Your task to perform on an android device: Open sound settings Image 0: 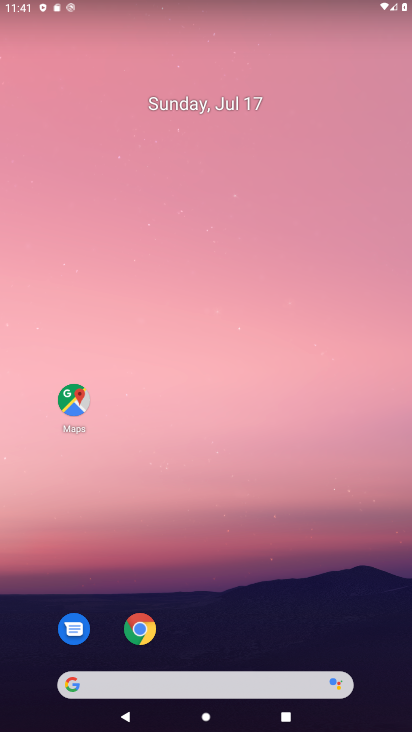
Step 0: press home button
Your task to perform on an android device: Open sound settings Image 1: 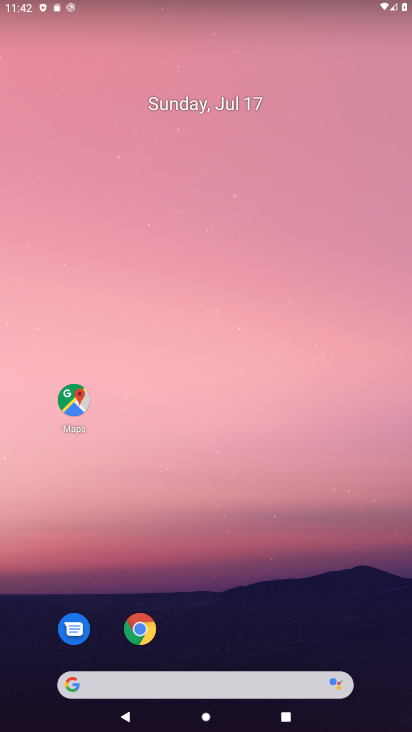
Step 1: drag from (217, 652) to (228, 79)
Your task to perform on an android device: Open sound settings Image 2: 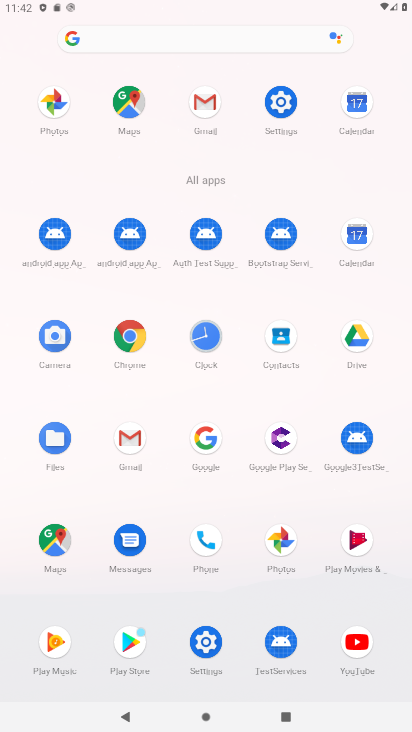
Step 2: click (277, 98)
Your task to perform on an android device: Open sound settings Image 3: 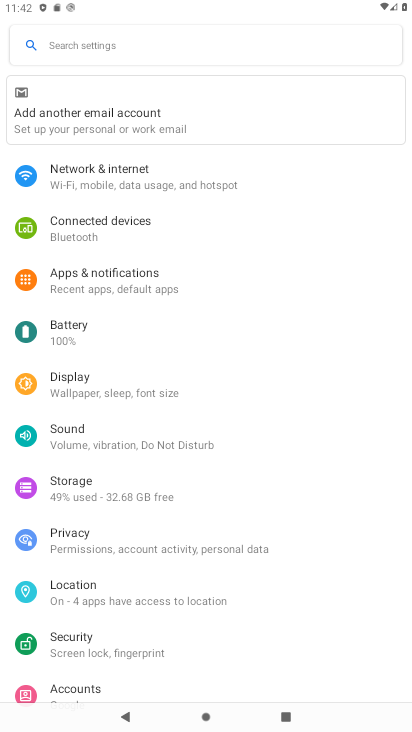
Step 3: click (101, 430)
Your task to perform on an android device: Open sound settings Image 4: 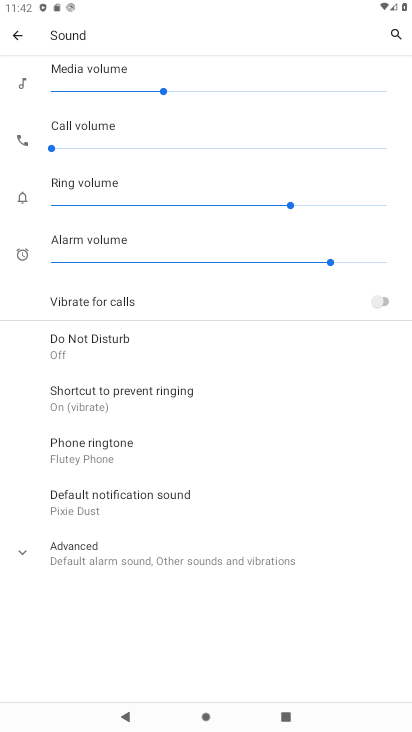
Step 4: click (27, 554)
Your task to perform on an android device: Open sound settings Image 5: 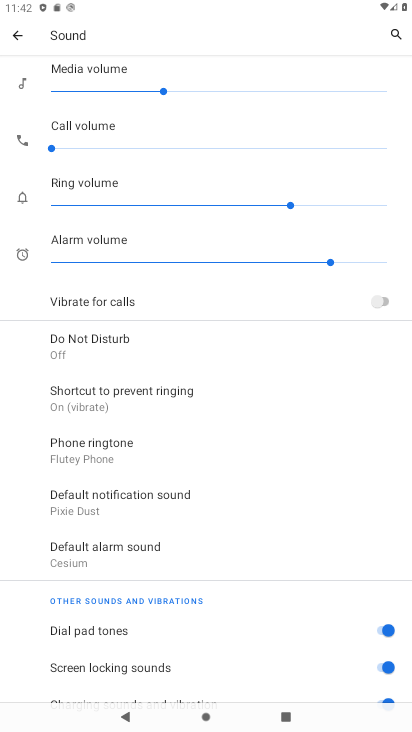
Step 5: task complete